Your task to perform on an android device: Do I have any events today? Image 0: 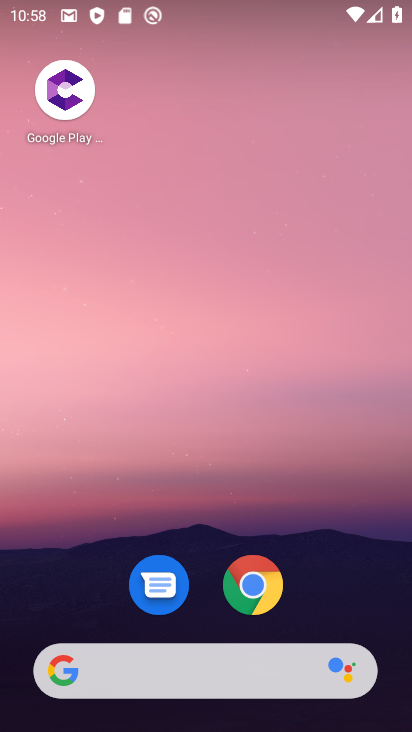
Step 0: drag from (277, 661) to (145, 169)
Your task to perform on an android device: Do I have any events today? Image 1: 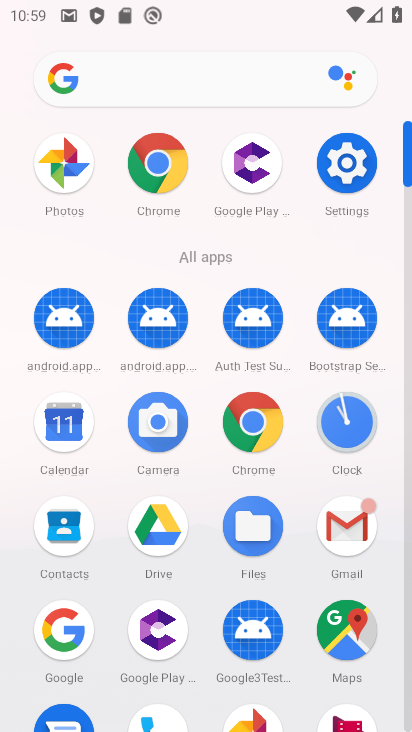
Step 1: click (78, 438)
Your task to perform on an android device: Do I have any events today? Image 2: 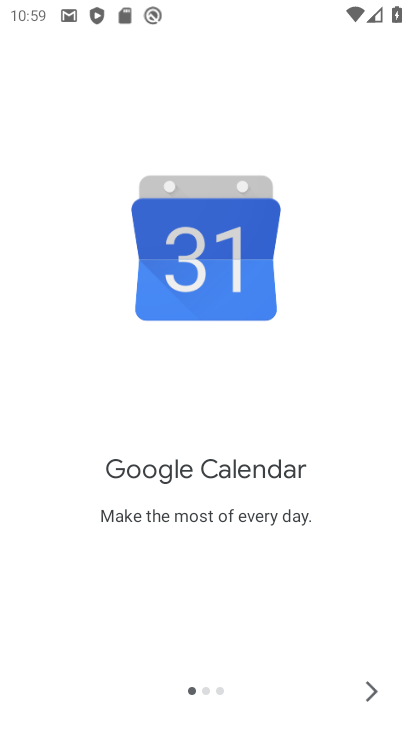
Step 2: click (366, 681)
Your task to perform on an android device: Do I have any events today? Image 3: 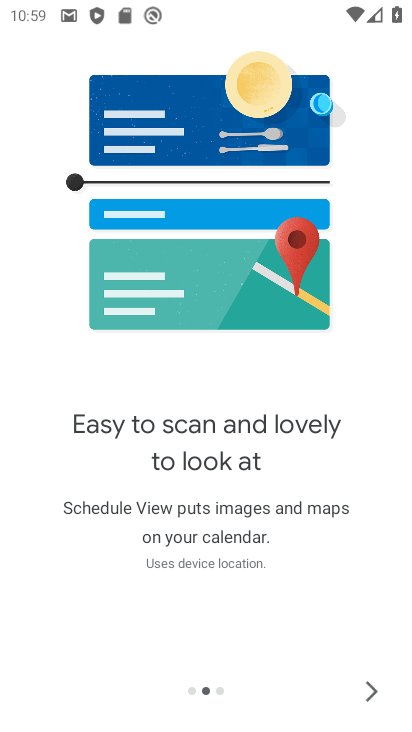
Step 3: click (372, 701)
Your task to perform on an android device: Do I have any events today? Image 4: 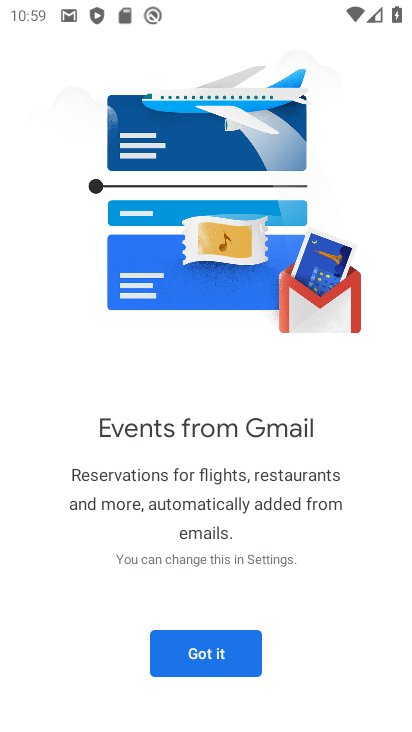
Step 4: click (234, 646)
Your task to perform on an android device: Do I have any events today? Image 5: 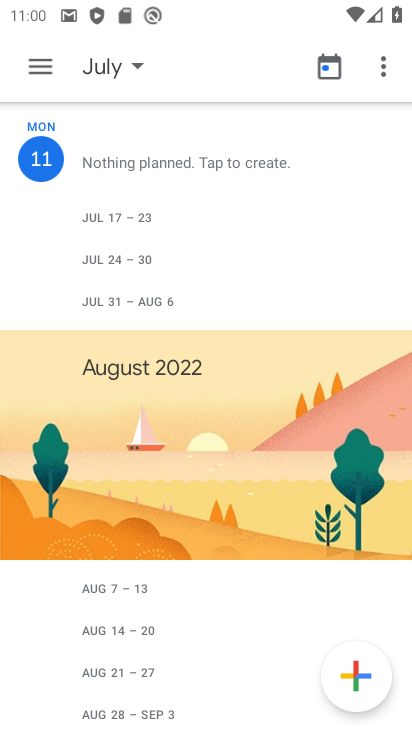
Step 5: task complete